Your task to perform on an android device: Open the stopwatch Image 0: 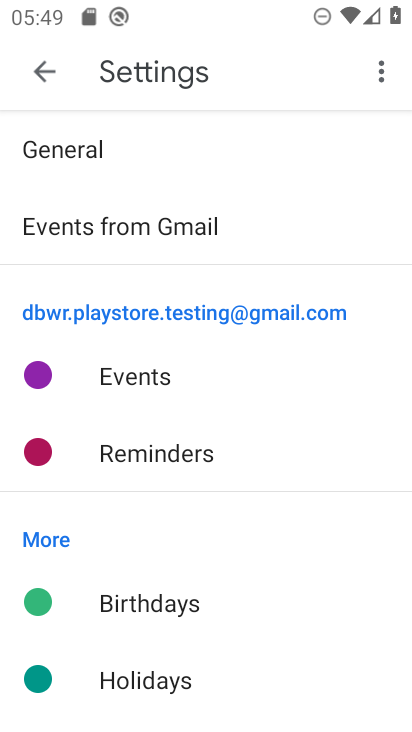
Step 0: press home button
Your task to perform on an android device: Open the stopwatch Image 1: 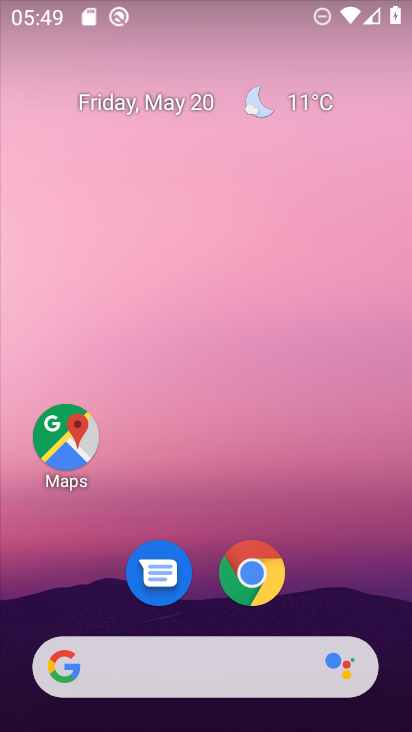
Step 1: drag from (343, 581) to (225, 102)
Your task to perform on an android device: Open the stopwatch Image 2: 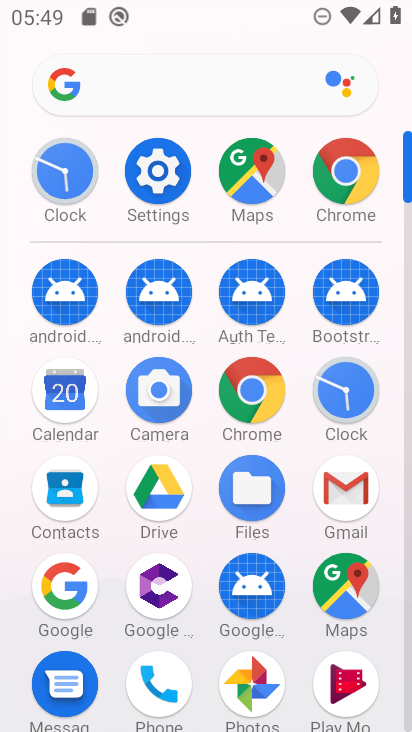
Step 2: click (330, 394)
Your task to perform on an android device: Open the stopwatch Image 3: 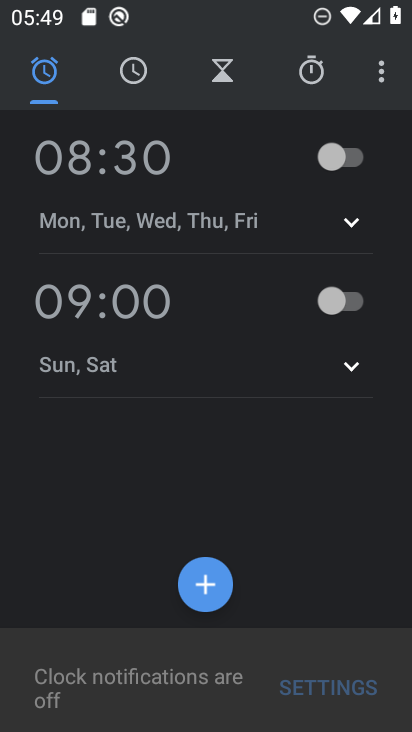
Step 3: click (310, 90)
Your task to perform on an android device: Open the stopwatch Image 4: 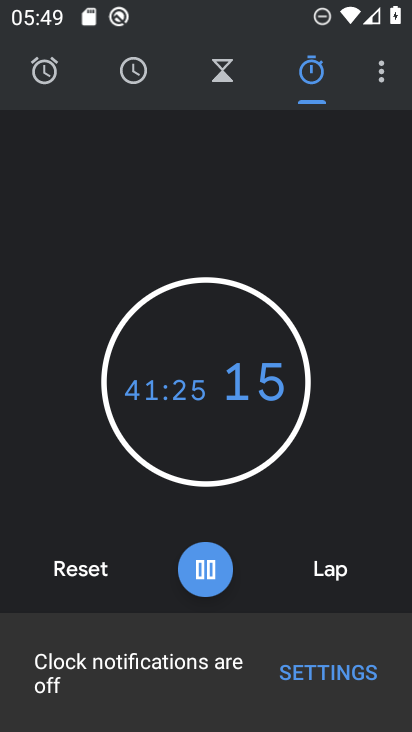
Step 4: task complete